Your task to perform on an android device: turn on the 24-hour format for clock Image 0: 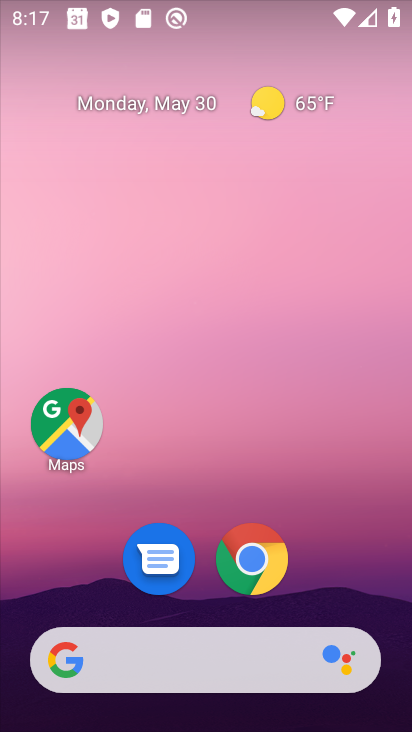
Step 0: drag from (309, 459) to (313, 4)
Your task to perform on an android device: turn on the 24-hour format for clock Image 1: 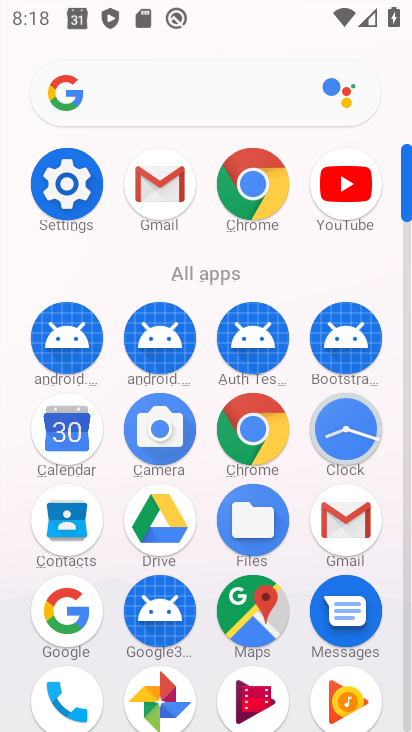
Step 1: click (345, 426)
Your task to perform on an android device: turn on the 24-hour format for clock Image 2: 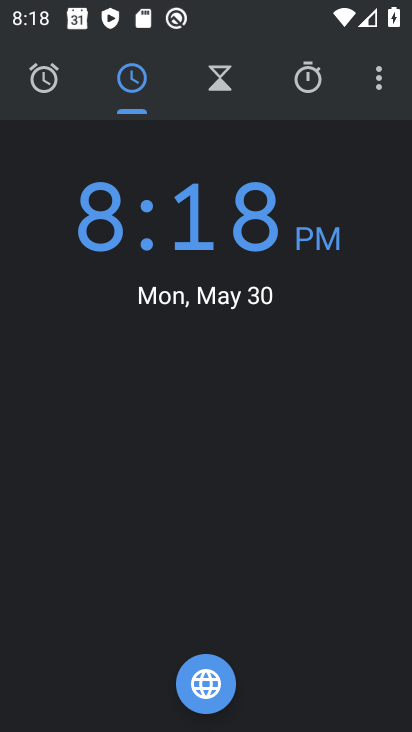
Step 2: click (377, 87)
Your task to perform on an android device: turn on the 24-hour format for clock Image 3: 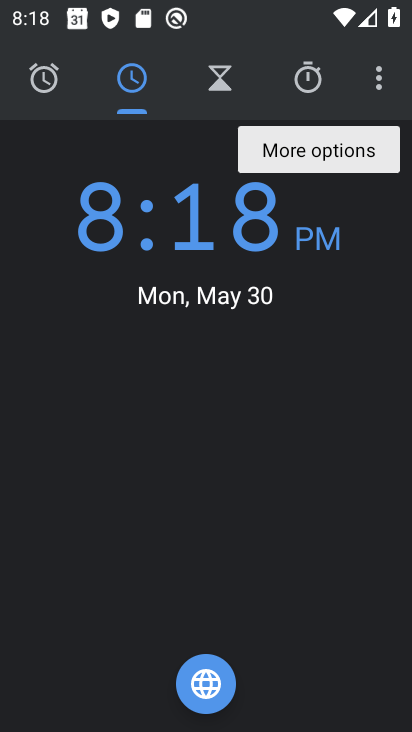
Step 3: click (379, 77)
Your task to perform on an android device: turn on the 24-hour format for clock Image 4: 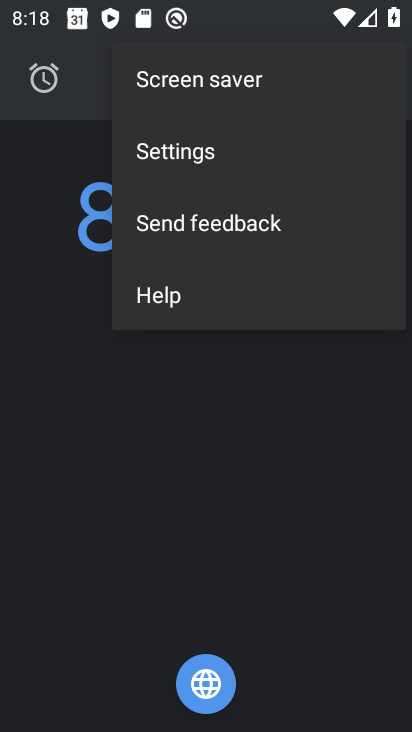
Step 4: click (172, 139)
Your task to perform on an android device: turn on the 24-hour format for clock Image 5: 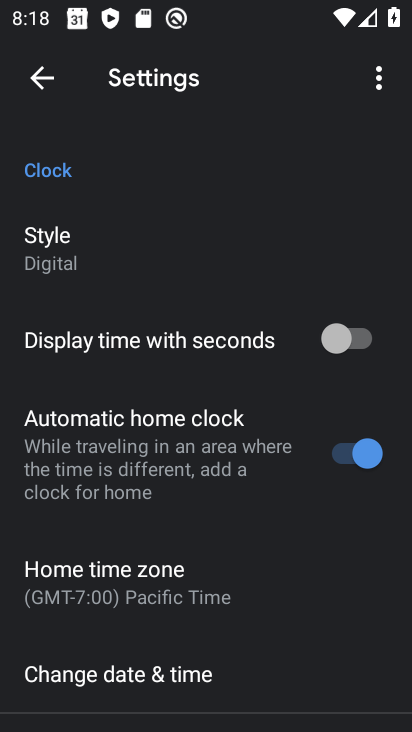
Step 5: click (133, 668)
Your task to perform on an android device: turn on the 24-hour format for clock Image 6: 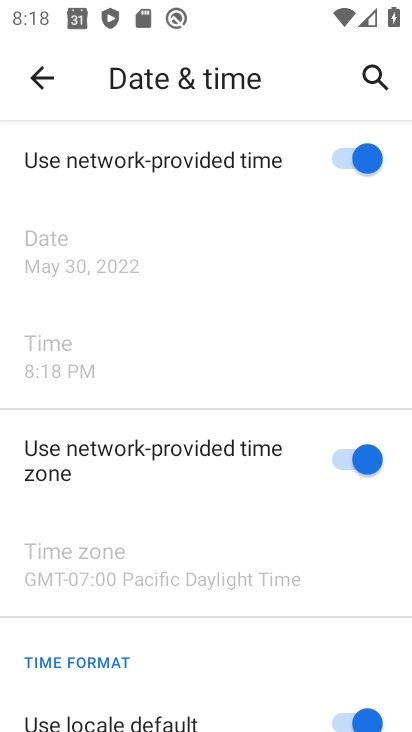
Step 6: drag from (220, 600) to (253, 113)
Your task to perform on an android device: turn on the 24-hour format for clock Image 7: 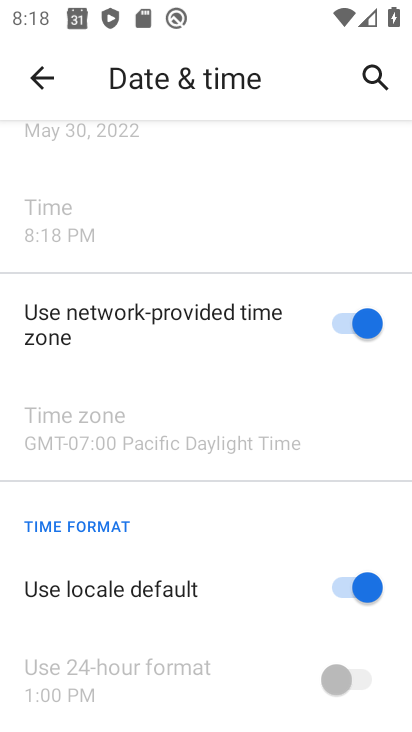
Step 7: click (356, 592)
Your task to perform on an android device: turn on the 24-hour format for clock Image 8: 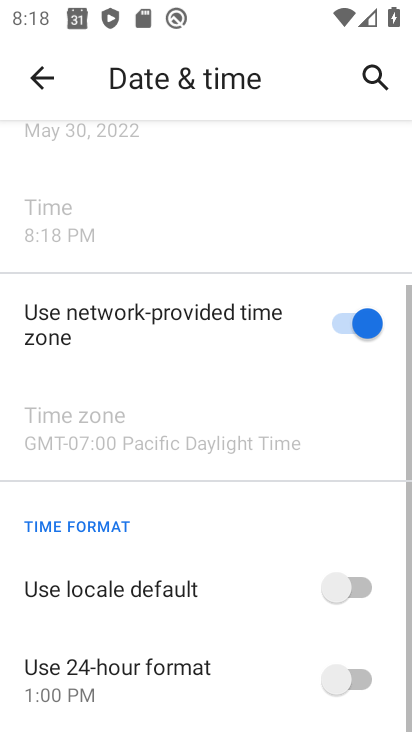
Step 8: click (341, 684)
Your task to perform on an android device: turn on the 24-hour format for clock Image 9: 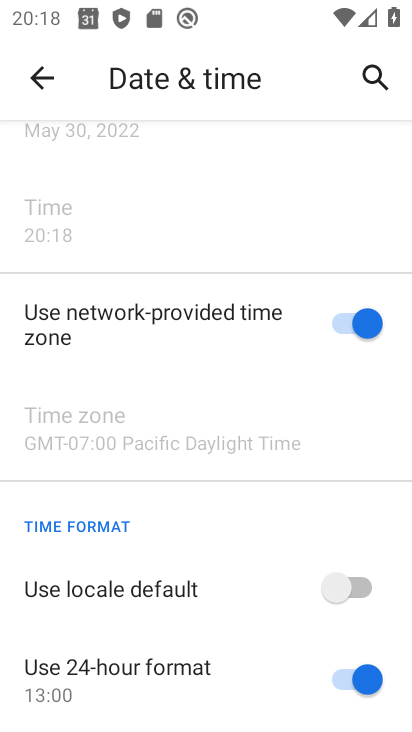
Step 9: task complete